Your task to perform on an android device: change timer sound Image 0: 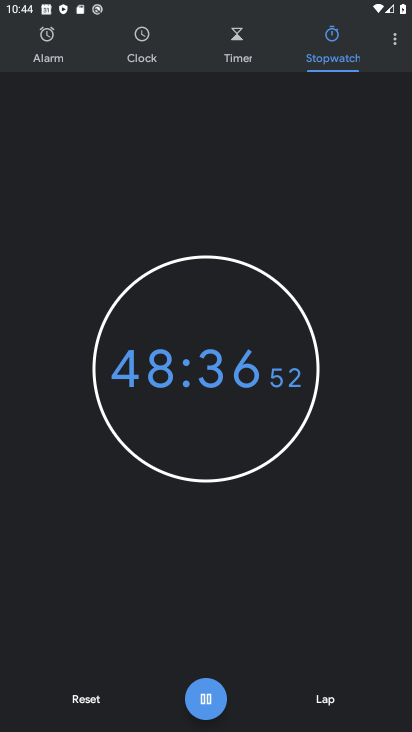
Step 0: drag from (180, 621) to (283, 119)
Your task to perform on an android device: change timer sound Image 1: 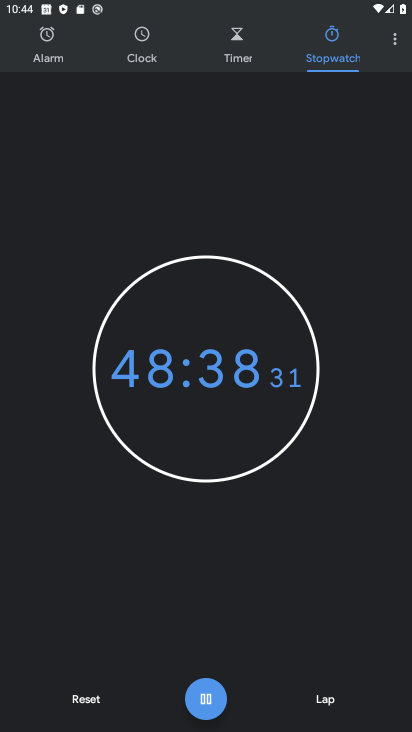
Step 1: press home button
Your task to perform on an android device: change timer sound Image 2: 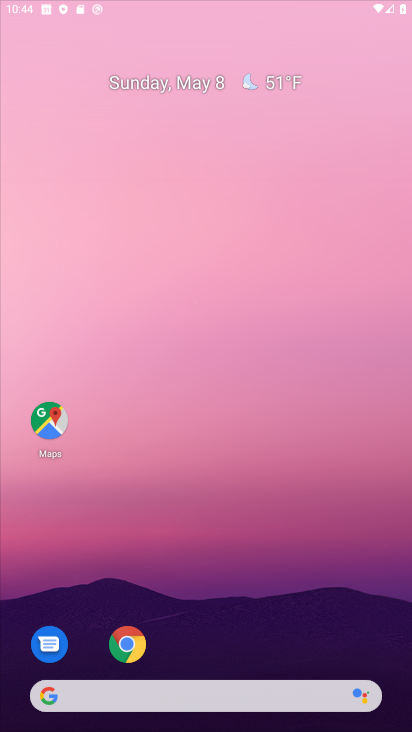
Step 2: drag from (150, 649) to (261, 152)
Your task to perform on an android device: change timer sound Image 3: 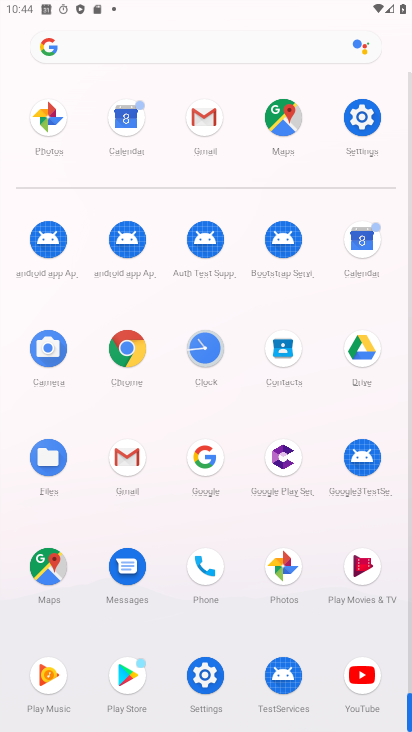
Step 3: drag from (233, 651) to (276, 190)
Your task to perform on an android device: change timer sound Image 4: 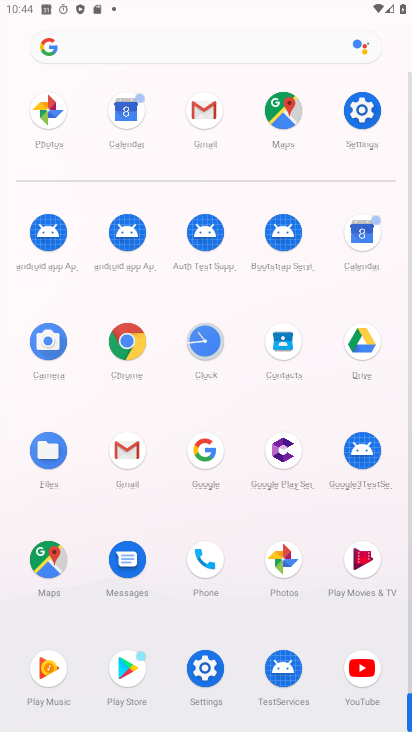
Step 4: click (204, 676)
Your task to perform on an android device: change timer sound Image 5: 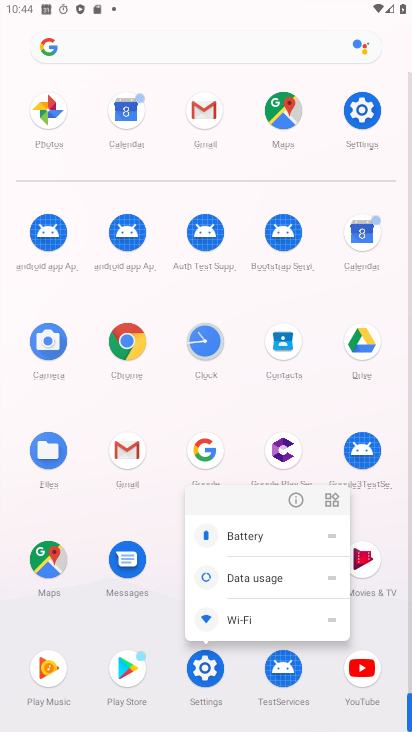
Step 5: click (300, 504)
Your task to perform on an android device: change timer sound Image 6: 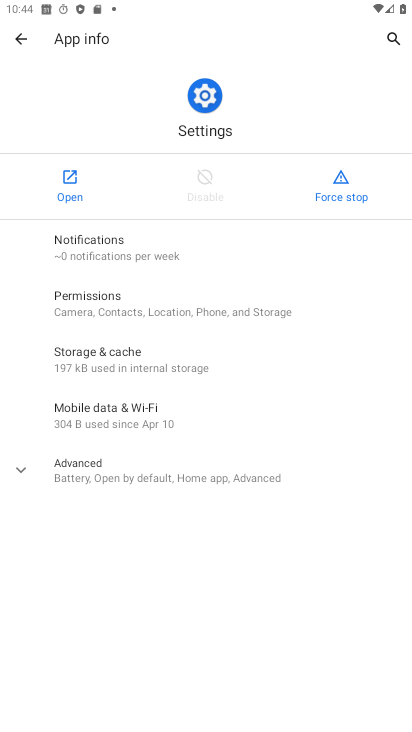
Step 6: click (95, 159)
Your task to perform on an android device: change timer sound Image 7: 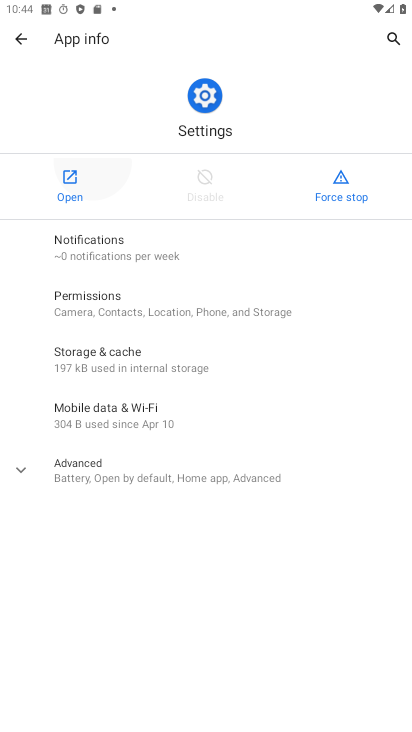
Step 7: click (71, 174)
Your task to perform on an android device: change timer sound Image 8: 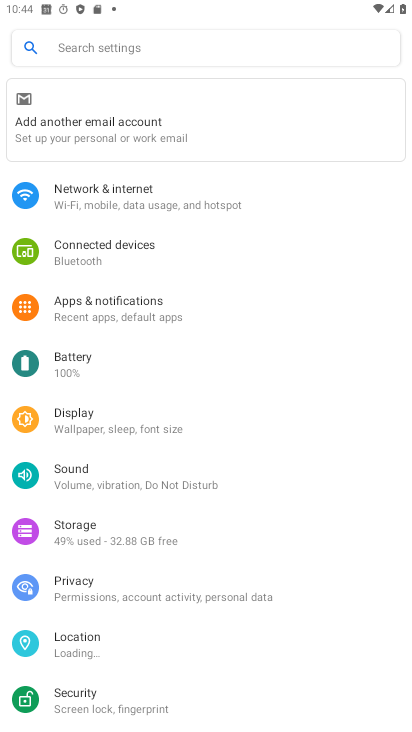
Step 8: drag from (211, 670) to (238, 236)
Your task to perform on an android device: change timer sound Image 9: 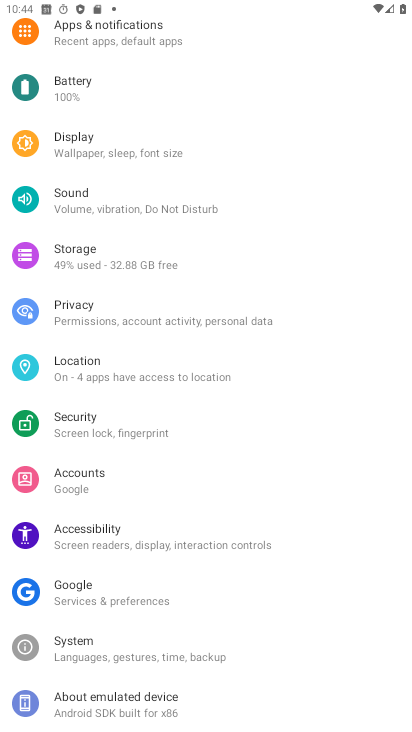
Step 9: press home button
Your task to perform on an android device: change timer sound Image 10: 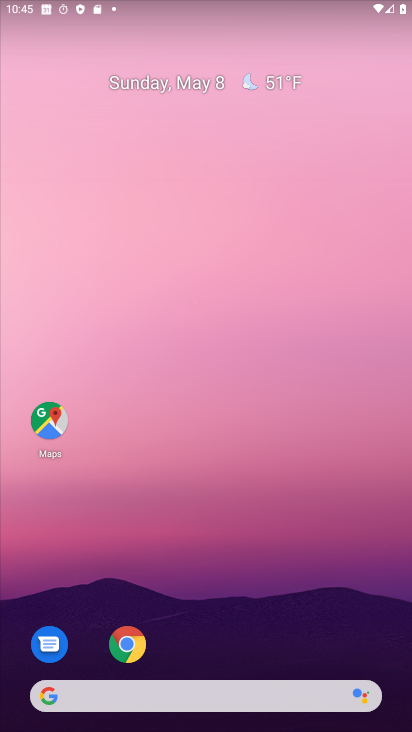
Step 10: drag from (240, 636) to (182, 13)
Your task to perform on an android device: change timer sound Image 11: 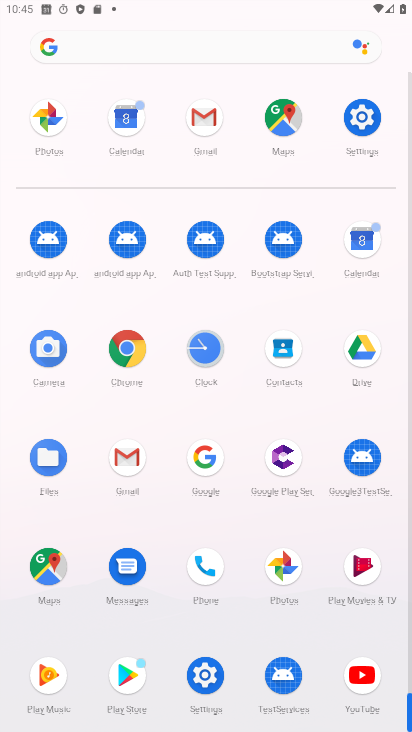
Step 11: click (193, 341)
Your task to perform on an android device: change timer sound Image 12: 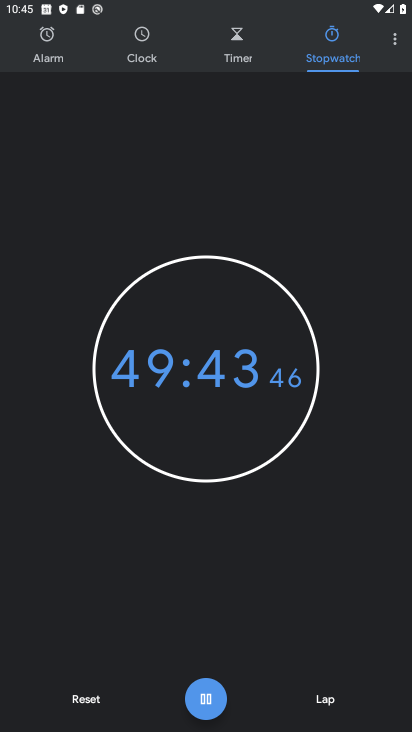
Step 12: click (380, 53)
Your task to perform on an android device: change timer sound Image 13: 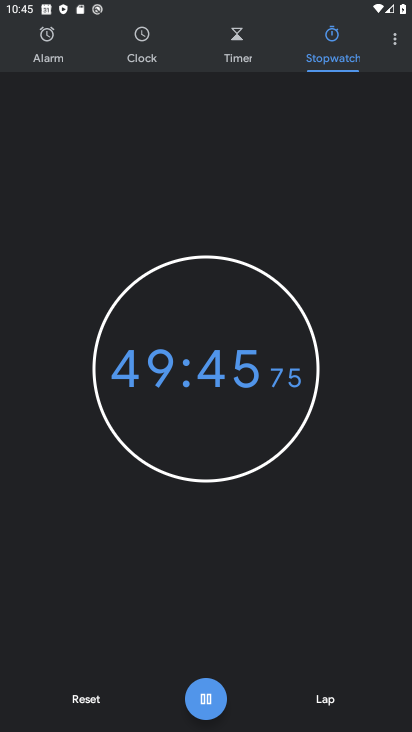
Step 13: click (395, 46)
Your task to perform on an android device: change timer sound Image 14: 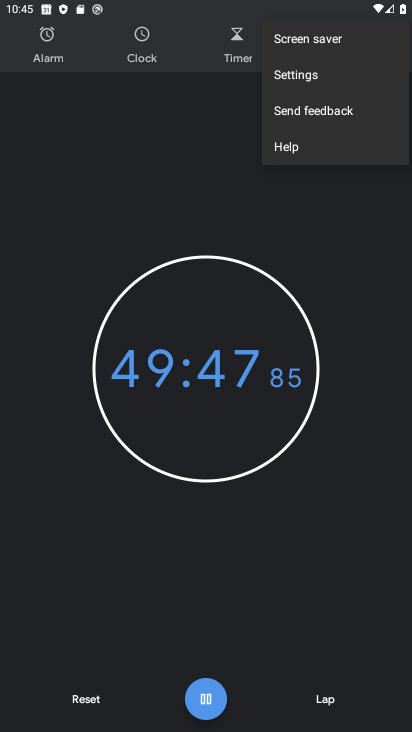
Step 14: click (334, 82)
Your task to perform on an android device: change timer sound Image 15: 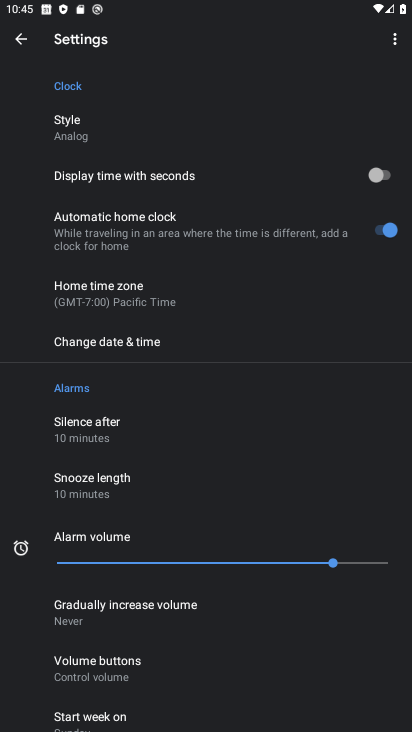
Step 15: drag from (167, 652) to (249, 261)
Your task to perform on an android device: change timer sound Image 16: 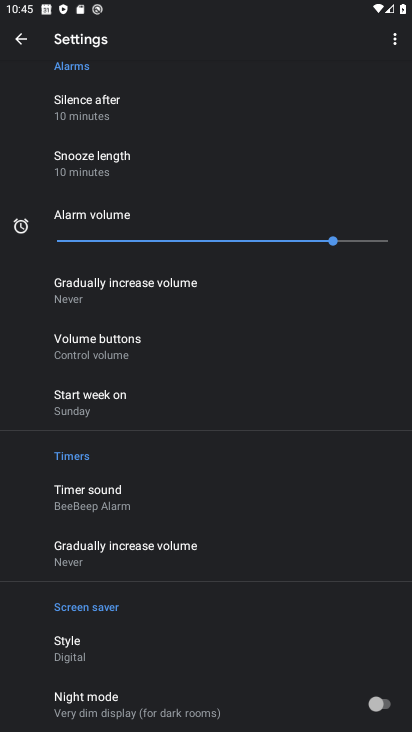
Step 16: click (137, 507)
Your task to perform on an android device: change timer sound Image 17: 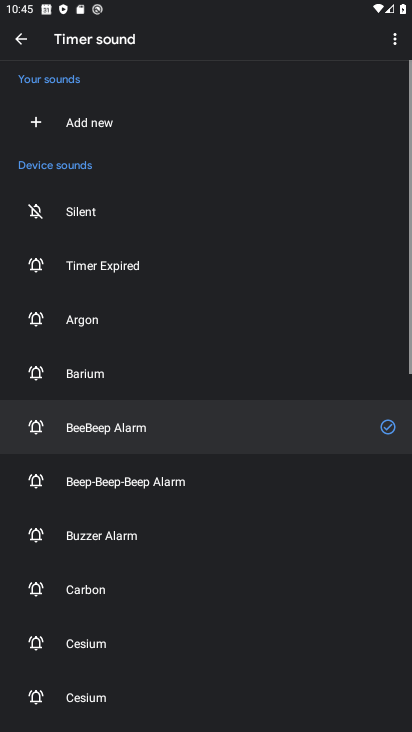
Step 17: click (168, 538)
Your task to perform on an android device: change timer sound Image 18: 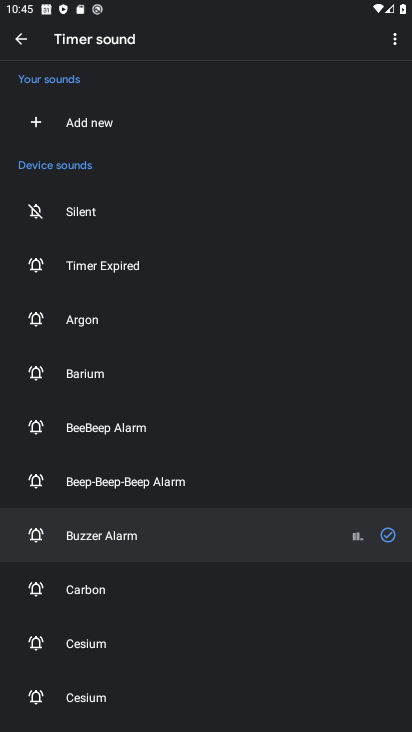
Step 18: task complete